Your task to perform on an android device: Clear the cart on newegg. Search for "razer huntsman" on newegg, select the first entry, and add it to the cart. Image 0: 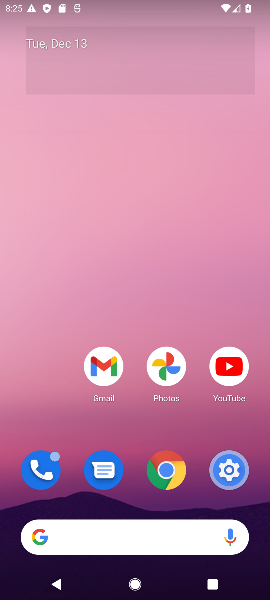
Step 0: press home button
Your task to perform on an android device: Clear the cart on newegg. Search for "razer huntsman" on newegg, select the first entry, and add it to the cart. Image 1: 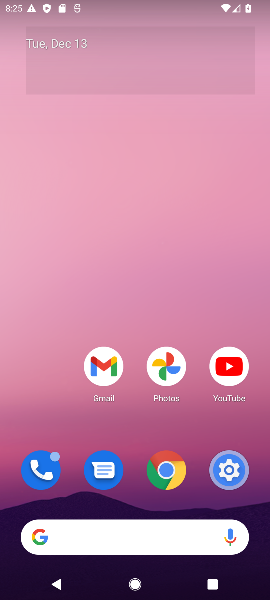
Step 1: click (55, 530)
Your task to perform on an android device: Clear the cart on newegg. Search for "razer huntsman" on newegg, select the first entry, and add it to the cart. Image 2: 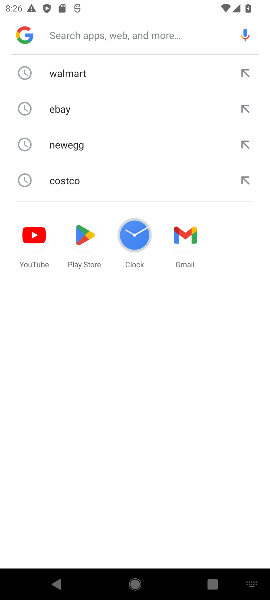
Step 2: type "newegg"
Your task to perform on an android device: Clear the cart on newegg. Search for "razer huntsman" on newegg, select the first entry, and add it to the cart. Image 3: 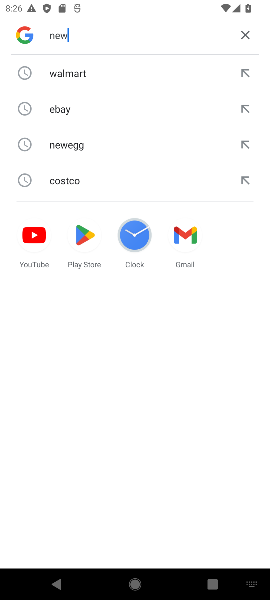
Step 3: press enter
Your task to perform on an android device: Clear the cart on newegg. Search for "razer huntsman" on newegg, select the first entry, and add it to the cart. Image 4: 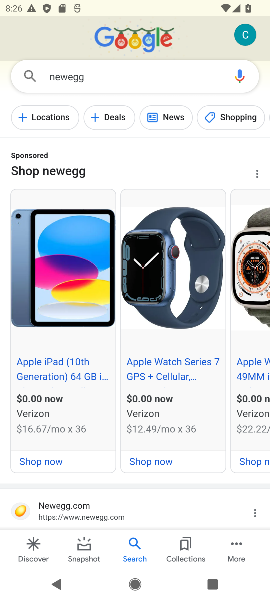
Step 4: drag from (123, 509) to (110, 315)
Your task to perform on an android device: Clear the cart on newegg. Search for "razer huntsman" on newegg, select the first entry, and add it to the cart. Image 5: 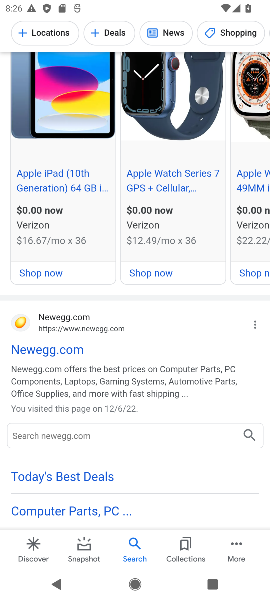
Step 5: click (37, 351)
Your task to perform on an android device: Clear the cart on newegg. Search for "razer huntsman" on newegg, select the first entry, and add it to the cart. Image 6: 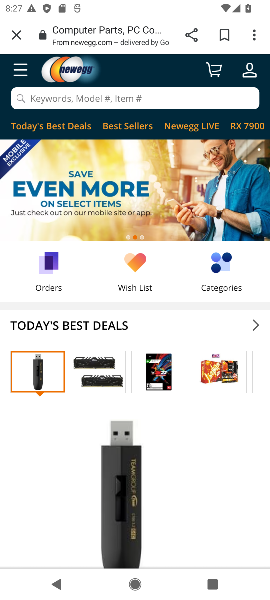
Step 6: click (210, 70)
Your task to perform on an android device: Clear the cart on newegg. Search for "razer huntsman" on newegg, select the first entry, and add it to the cart. Image 7: 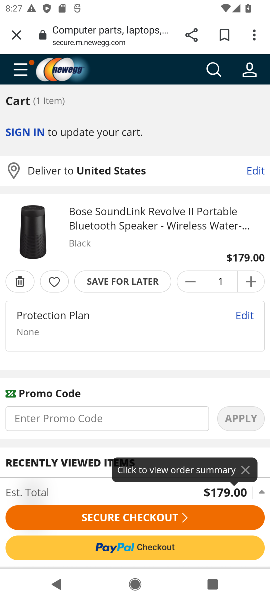
Step 7: click (18, 280)
Your task to perform on an android device: Clear the cart on newegg. Search for "razer huntsman" on newegg, select the first entry, and add it to the cart. Image 8: 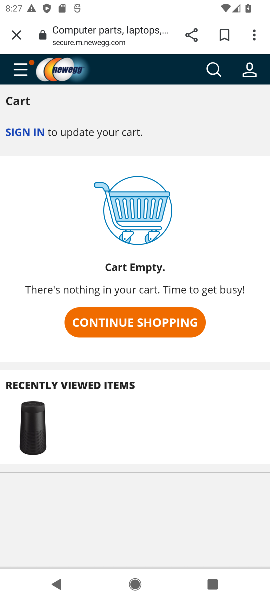
Step 8: click (213, 72)
Your task to perform on an android device: Clear the cart on newegg. Search for "razer huntsman" on newegg, select the first entry, and add it to the cart. Image 9: 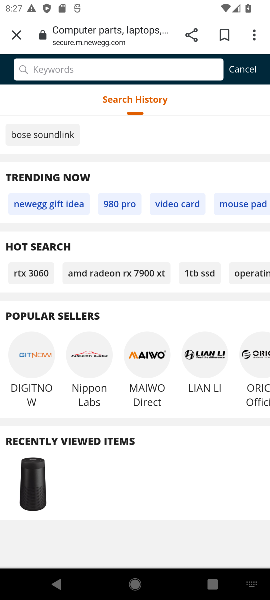
Step 9: type "razer huntsman"
Your task to perform on an android device: Clear the cart on newegg. Search for "razer huntsman" on newegg, select the first entry, and add it to the cart. Image 10: 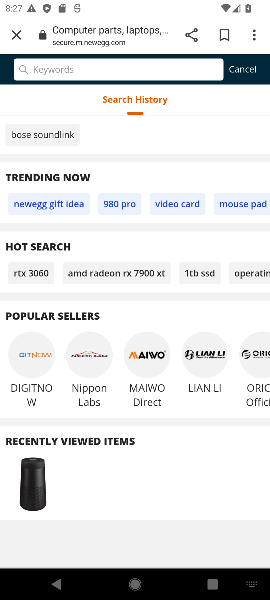
Step 10: press enter
Your task to perform on an android device: Clear the cart on newegg. Search for "razer huntsman" on newegg, select the first entry, and add it to the cart. Image 11: 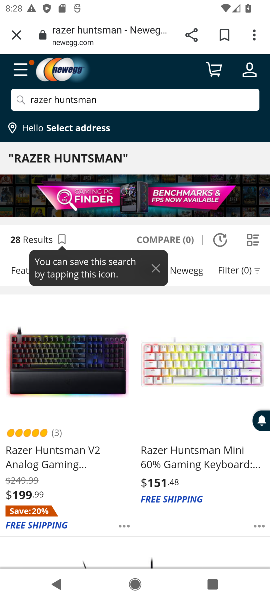
Step 11: click (39, 453)
Your task to perform on an android device: Clear the cart on newegg. Search for "razer huntsman" on newegg, select the first entry, and add it to the cart. Image 12: 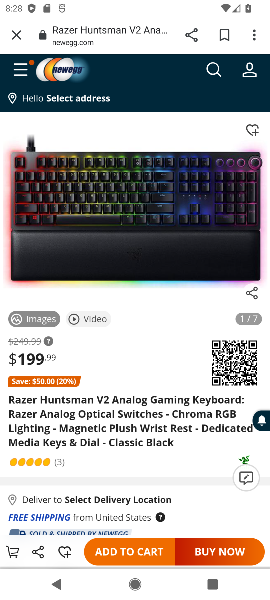
Step 12: click (121, 549)
Your task to perform on an android device: Clear the cart on newegg. Search for "razer huntsman" on newegg, select the first entry, and add it to the cart. Image 13: 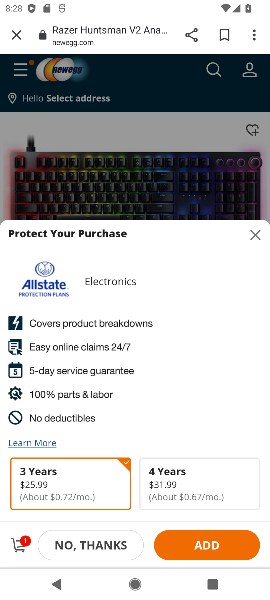
Step 13: task complete